Your task to perform on an android device: Open the calendar app, open the side menu, and click the "Day" option Image 0: 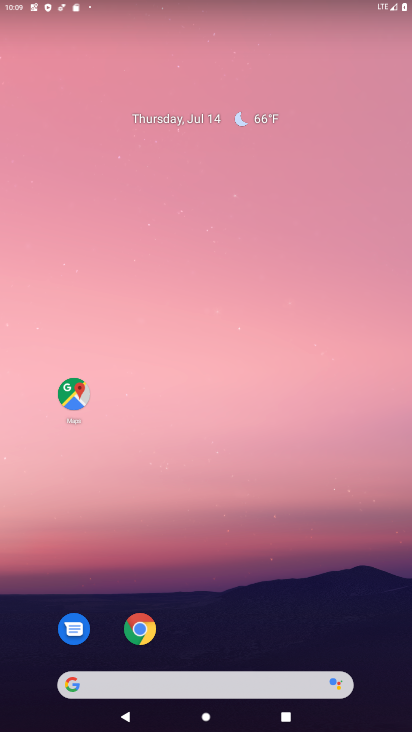
Step 0: press home button
Your task to perform on an android device: Open the calendar app, open the side menu, and click the "Day" option Image 1: 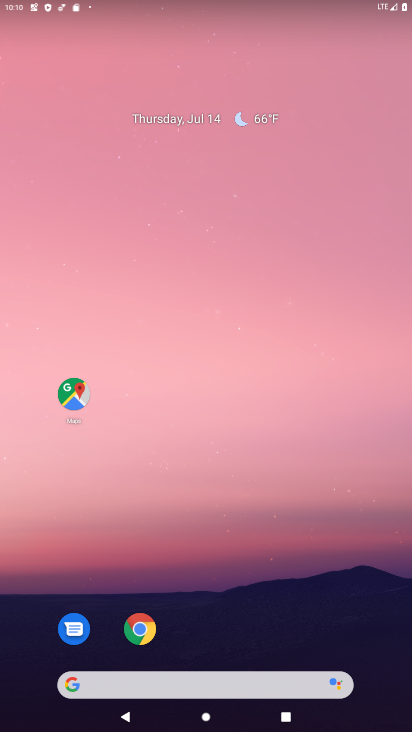
Step 1: drag from (246, 580) to (246, 130)
Your task to perform on an android device: Open the calendar app, open the side menu, and click the "Day" option Image 2: 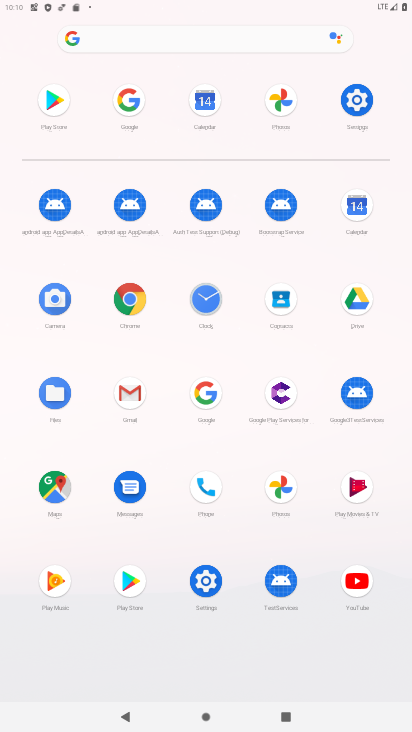
Step 2: click (361, 211)
Your task to perform on an android device: Open the calendar app, open the side menu, and click the "Day" option Image 3: 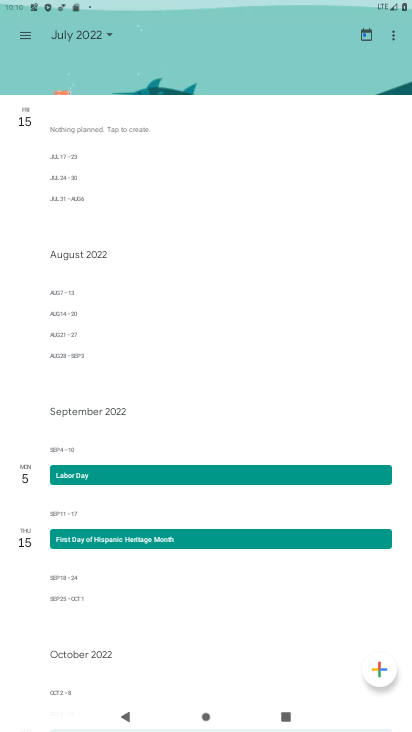
Step 3: click (25, 31)
Your task to perform on an android device: Open the calendar app, open the side menu, and click the "Day" option Image 4: 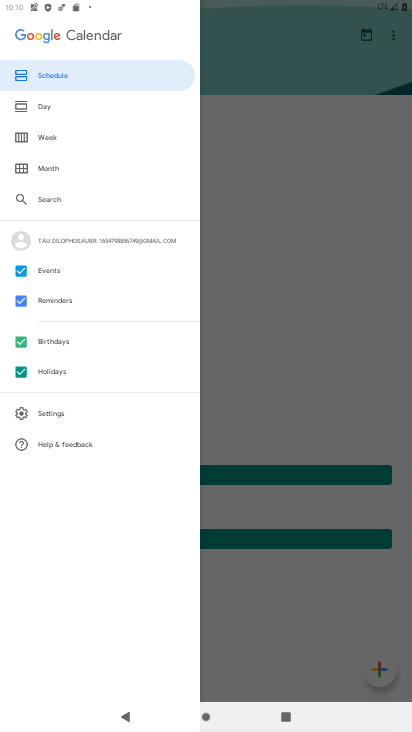
Step 4: click (32, 108)
Your task to perform on an android device: Open the calendar app, open the side menu, and click the "Day" option Image 5: 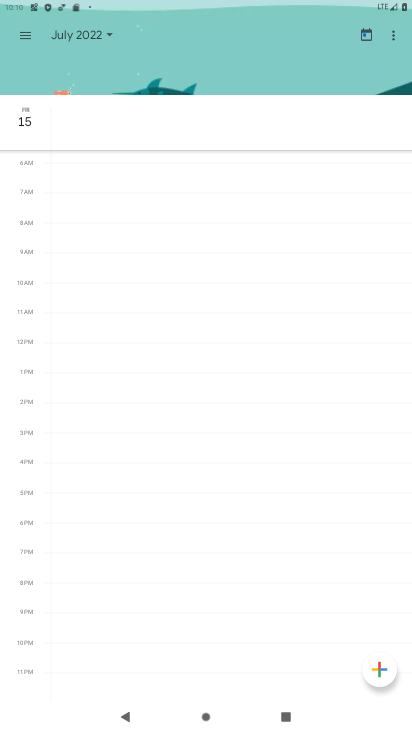
Step 5: task complete